Your task to perform on an android device: Show me the alarms in the clock app Image 0: 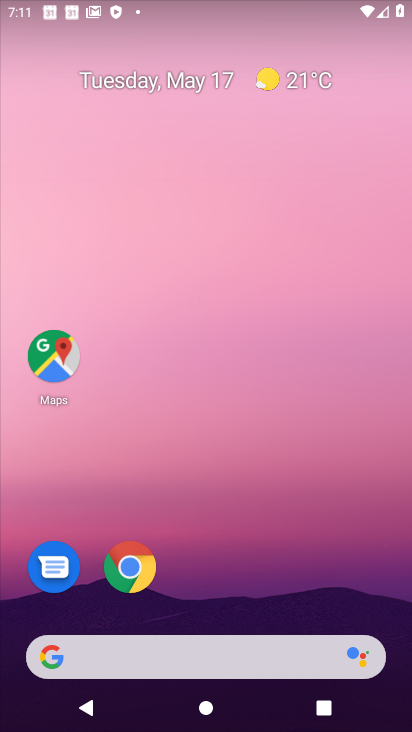
Step 0: drag from (228, 552) to (130, 138)
Your task to perform on an android device: Show me the alarms in the clock app Image 1: 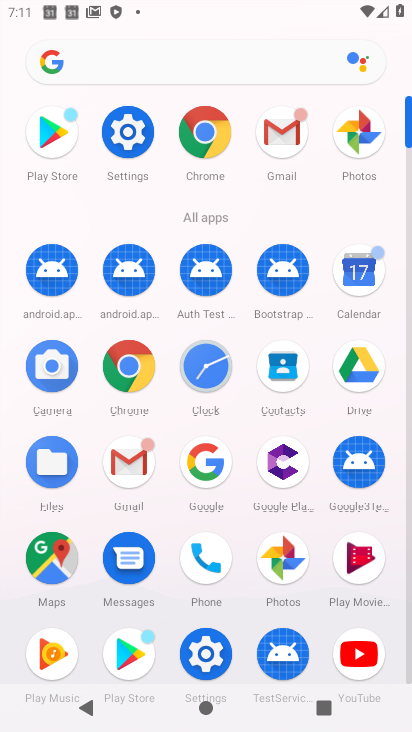
Step 1: click (207, 361)
Your task to perform on an android device: Show me the alarms in the clock app Image 2: 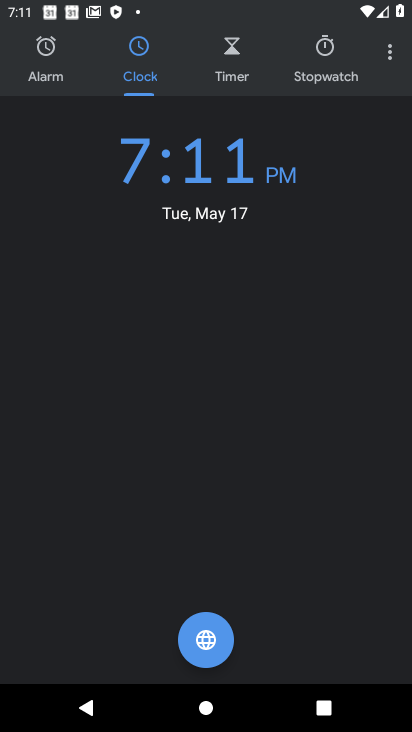
Step 2: click (44, 49)
Your task to perform on an android device: Show me the alarms in the clock app Image 3: 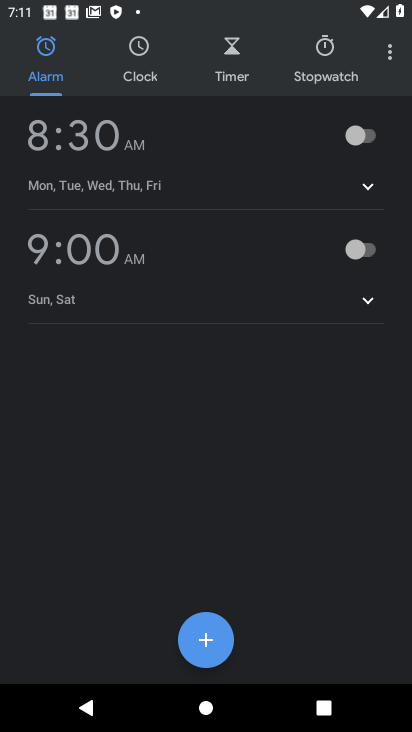
Step 3: task complete